Your task to perform on an android device: Go to CNN.com Image 0: 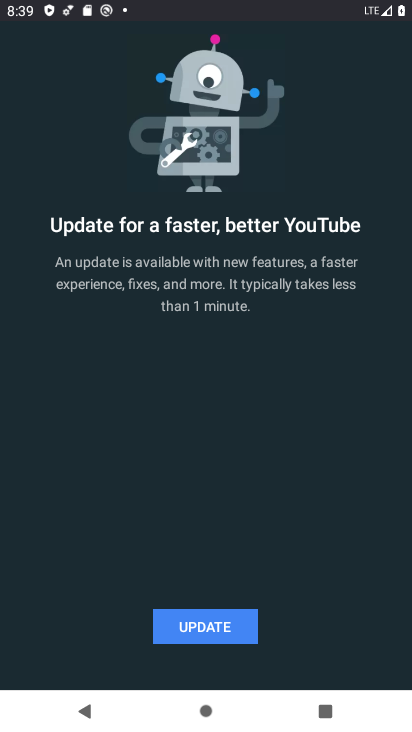
Step 0: press home button
Your task to perform on an android device: Go to CNN.com Image 1: 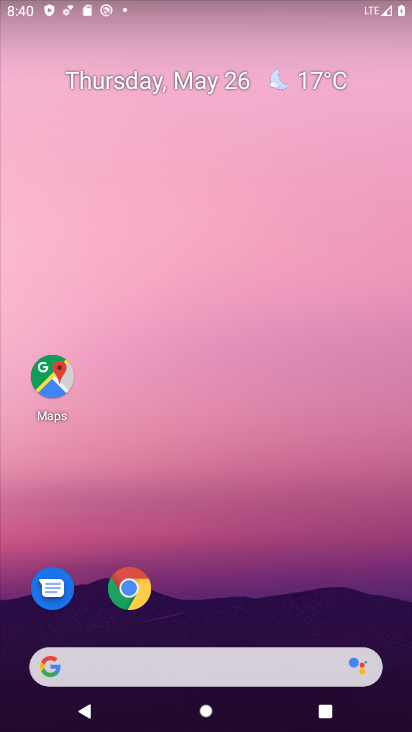
Step 1: click (128, 585)
Your task to perform on an android device: Go to CNN.com Image 2: 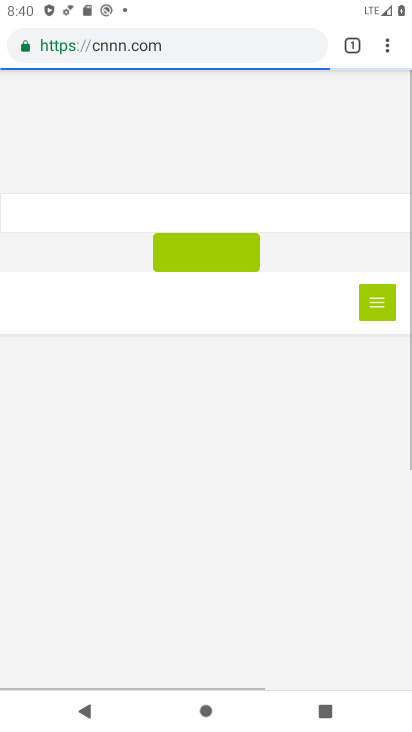
Step 2: click (221, 42)
Your task to perform on an android device: Go to CNN.com Image 3: 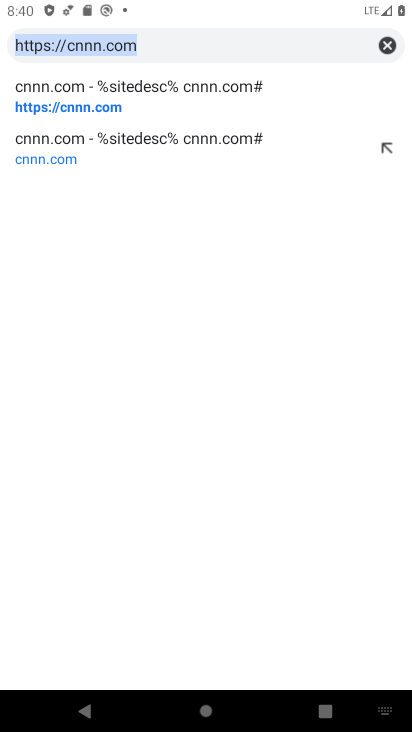
Step 3: click (385, 41)
Your task to perform on an android device: Go to CNN.com Image 4: 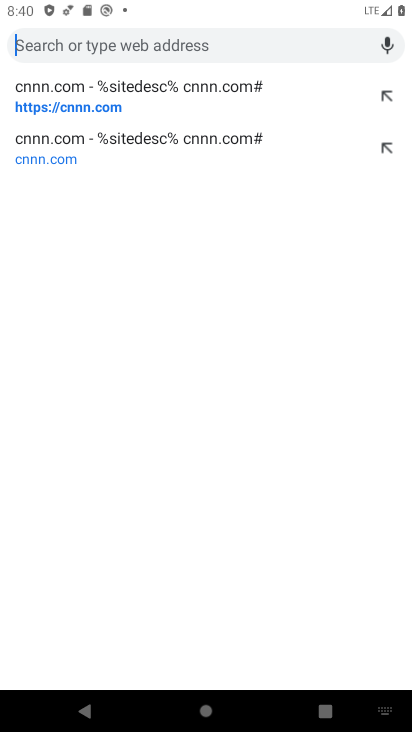
Step 4: type "cnn.com"
Your task to perform on an android device: Go to CNN.com Image 5: 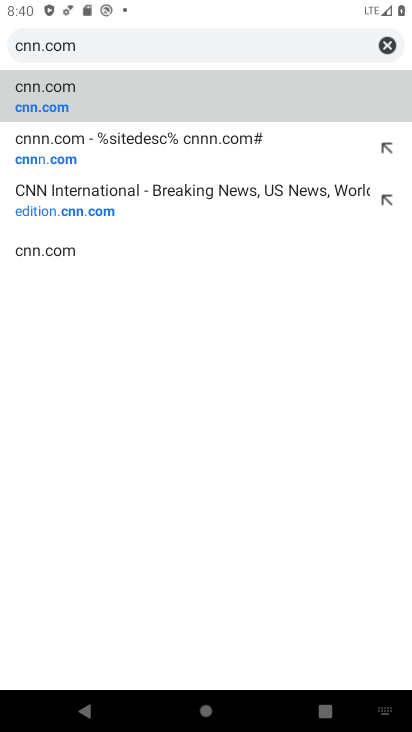
Step 5: click (96, 109)
Your task to perform on an android device: Go to CNN.com Image 6: 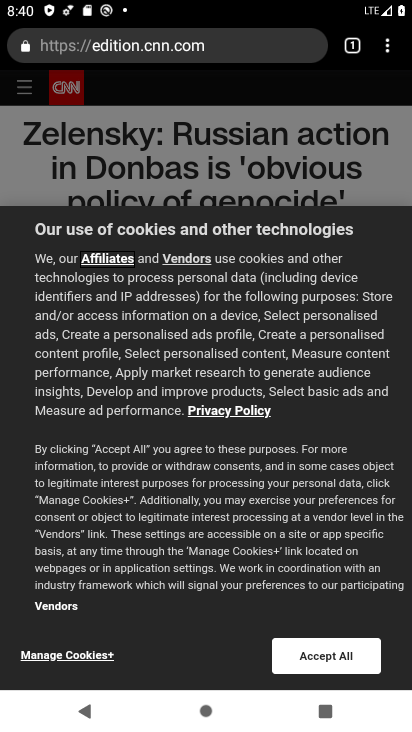
Step 6: click (322, 658)
Your task to perform on an android device: Go to CNN.com Image 7: 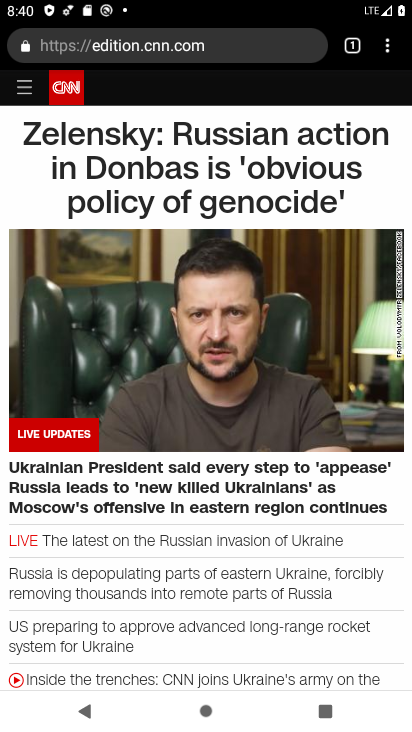
Step 7: task complete